Your task to perform on an android device: Show me the alarms in the clock app Image 0: 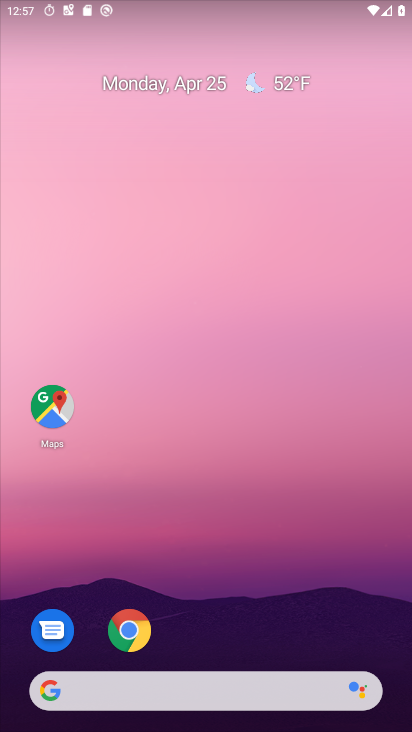
Step 0: drag from (180, 640) to (74, 92)
Your task to perform on an android device: Show me the alarms in the clock app Image 1: 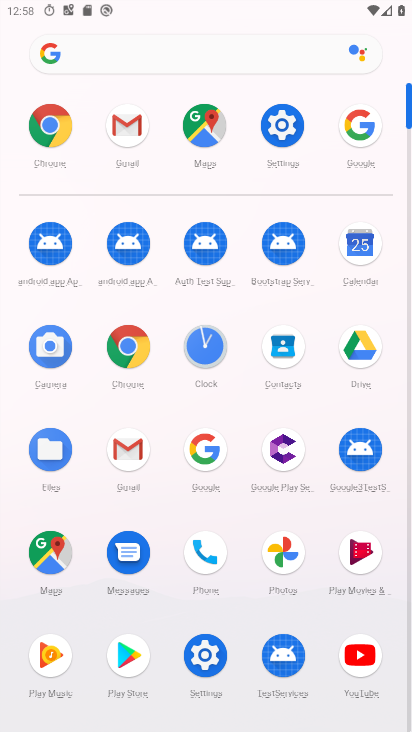
Step 1: click (203, 341)
Your task to perform on an android device: Show me the alarms in the clock app Image 2: 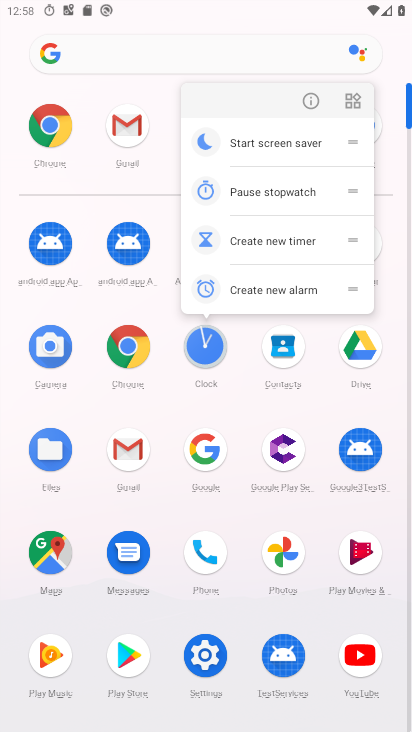
Step 2: click (318, 98)
Your task to perform on an android device: Show me the alarms in the clock app Image 3: 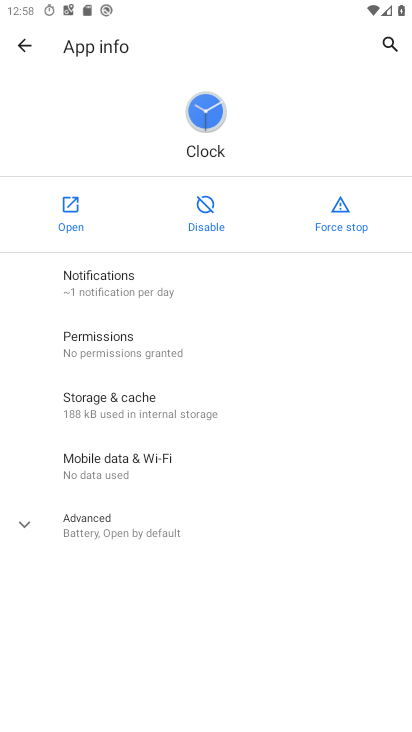
Step 3: click (84, 214)
Your task to perform on an android device: Show me the alarms in the clock app Image 4: 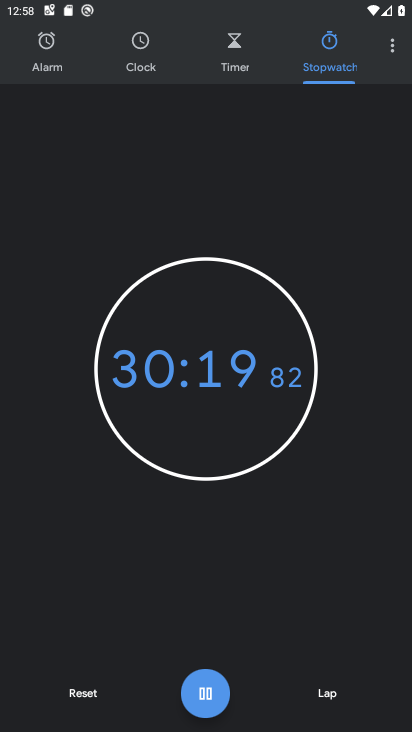
Step 4: click (39, 57)
Your task to perform on an android device: Show me the alarms in the clock app Image 5: 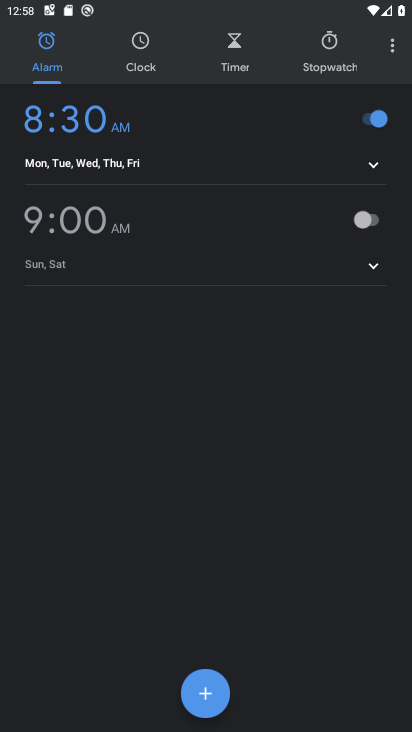
Step 5: task complete